Your task to perform on an android device: turn on data saver in the chrome app Image 0: 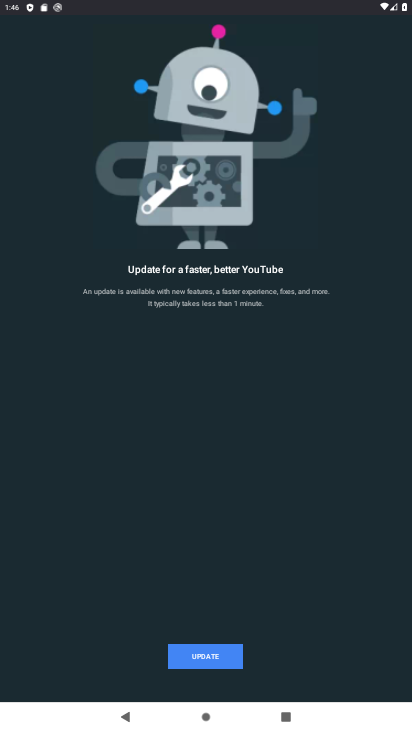
Step 0: press home button
Your task to perform on an android device: turn on data saver in the chrome app Image 1: 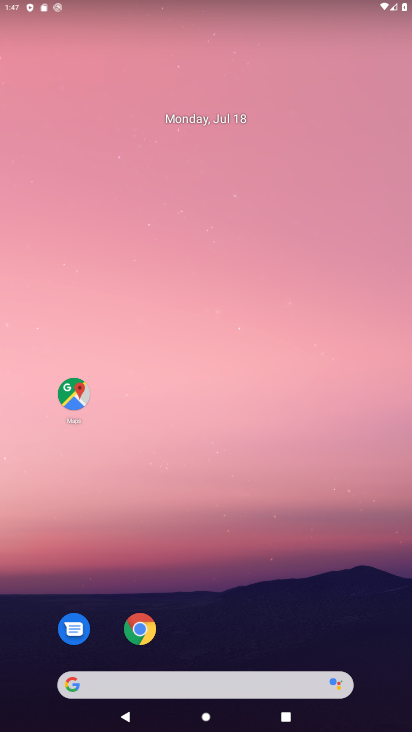
Step 1: click (136, 631)
Your task to perform on an android device: turn on data saver in the chrome app Image 2: 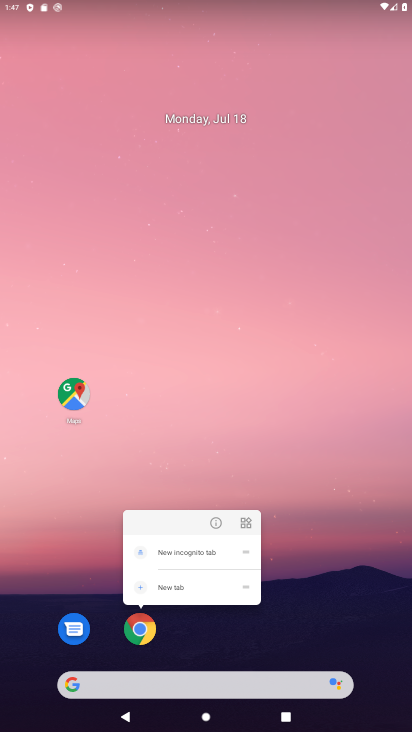
Step 2: click (150, 631)
Your task to perform on an android device: turn on data saver in the chrome app Image 3: 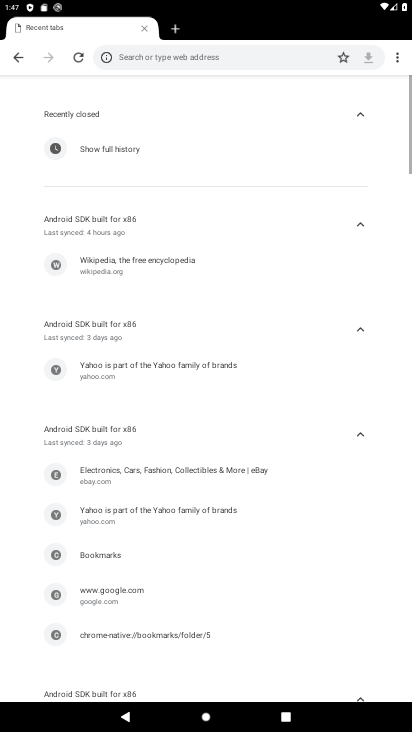
Step 3: click (396, 65)
Your task to perform on an android device: turn on data saver in the chrome app Image 4: 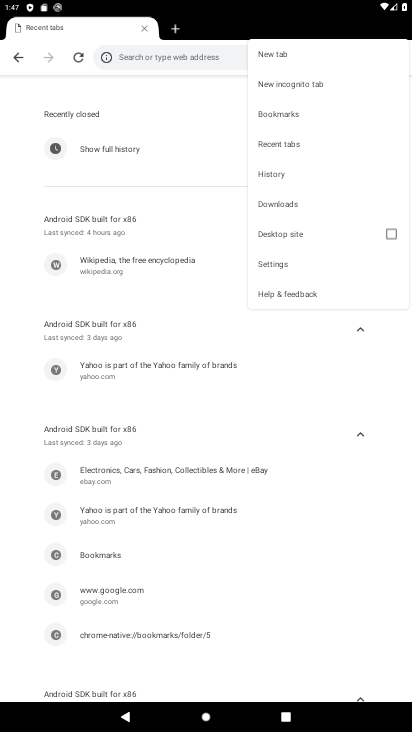
Step 4: click (300, 266)
Your task to perform on an android device: turn on data saver in the chrome app Image 5: 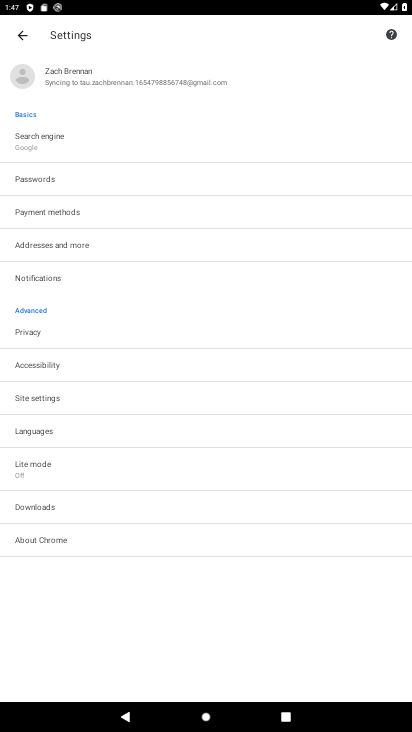
Step 5: click (96, 461)
Your task to perform on an android device: turn on data saver in the chrome app Image 6: 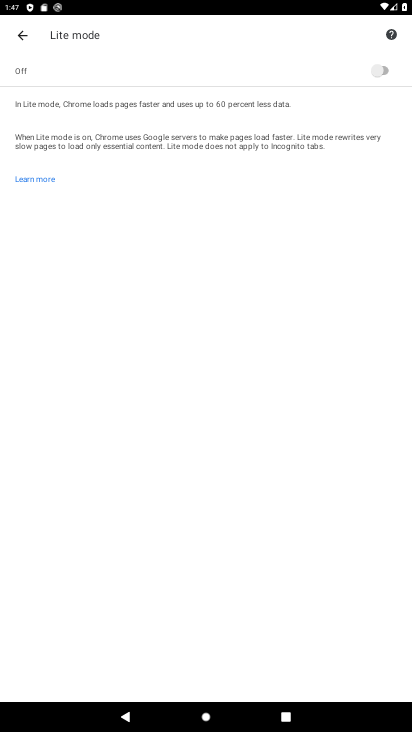
Step 6: click (382, 73)
Your task to perform on an android device: turn on data saver in the chrome app Image 7: 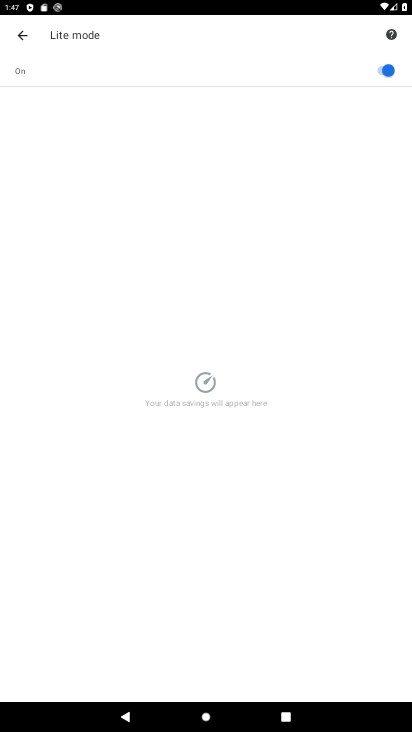
Step 7: task complete